Your task to perform on an android device: change the upload size in google photos Image 0: 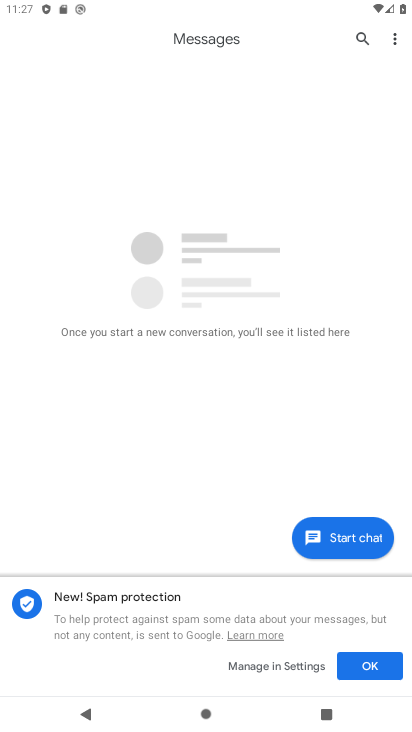
Step 0: press home button
Your task to perform on an android device: change the upload size in google photos Image 1: 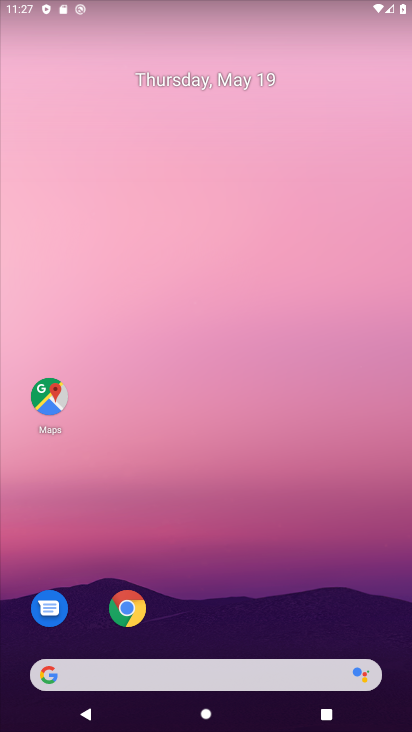
Step 1: drag from (395, 625) to (391, 224)
Your task to perform on an android device: change the upload size in google photos Image 2: 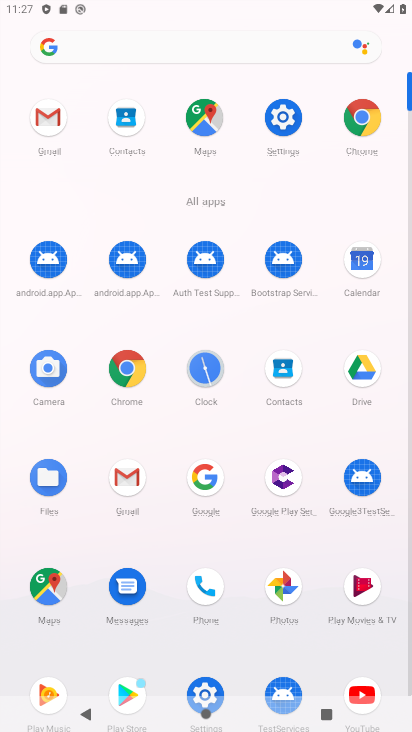
Step 2: click (275, 603)
Your task to perform on an android device: change the upload size in google photos Image 3: 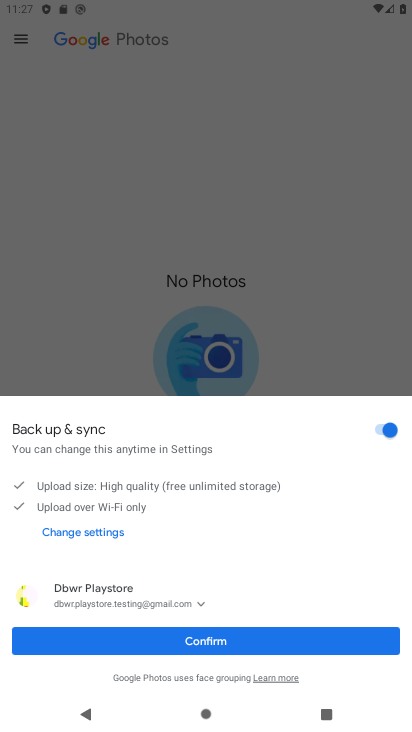
Step 3: click (343, 639)
Your task to perform on an android device: change the upload size in google photos Image 4: 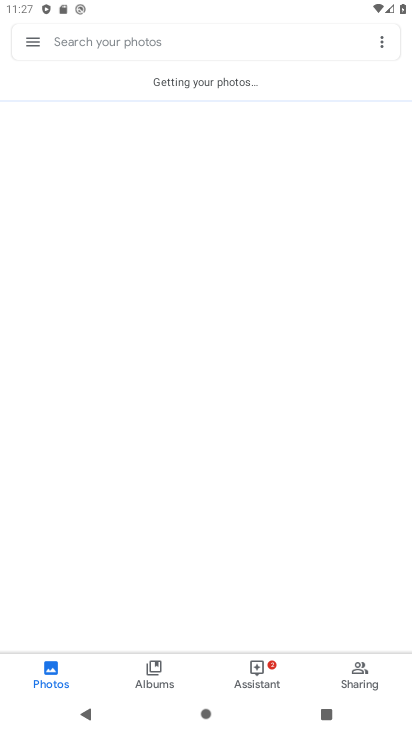
Step 4: click (22, 43)
Your task to perform on an android device: change the upload size in google photos Image 5: 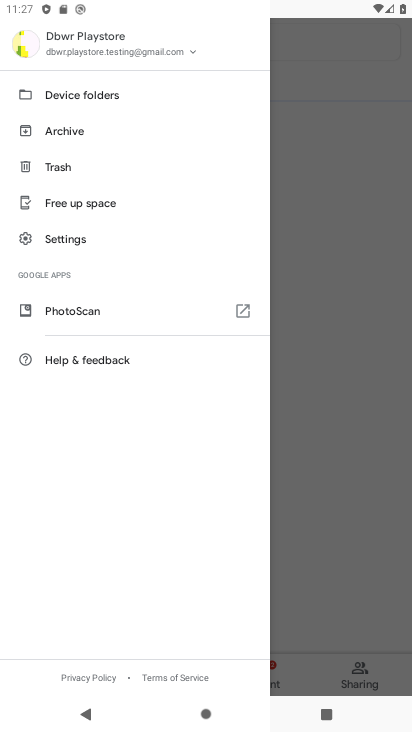
Step 5: drag from (180, 199) to (182, 358)
Your task to perform on an android device: change the upload size in google photos Image 6: 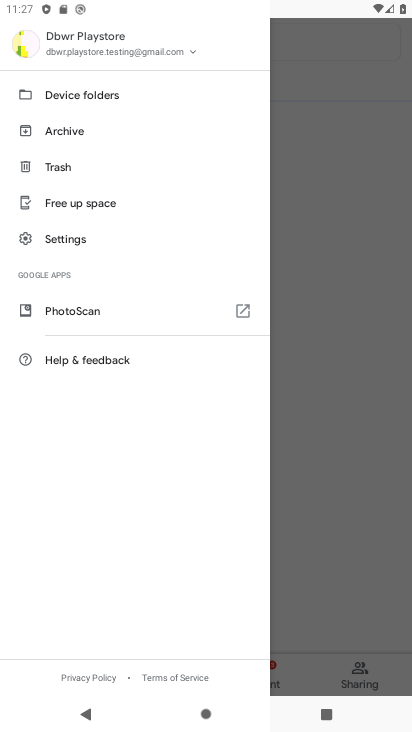
Step 6: click (95, 252)
Your task to perform on an android device: change the upload size in google photos Image 7: 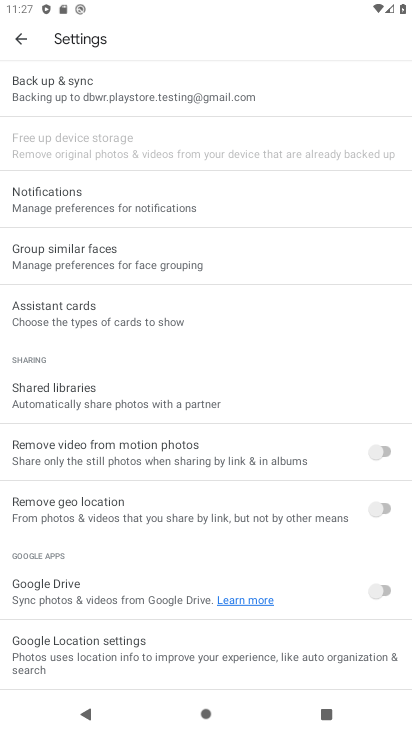
Step 7: click (137, 90)
Your task to perform on an android device: change the upload size in google photos Image 8: 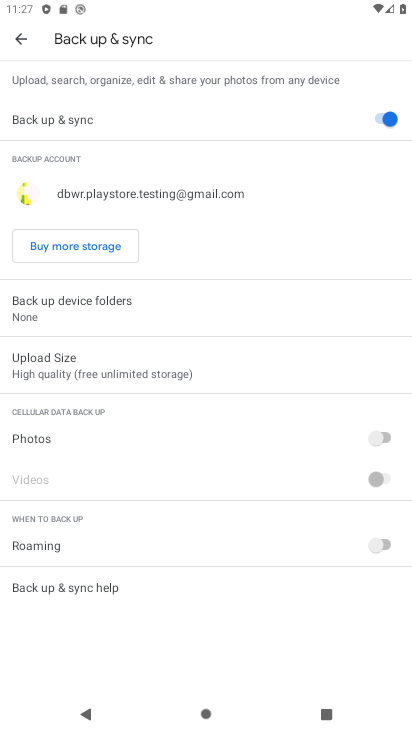
Step 8: click (189, 386)
Your task to perform on an android device: change the upload size in google photos Image 9: 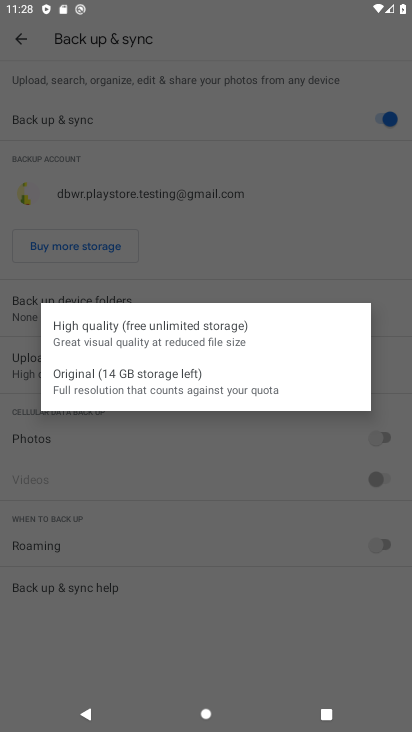
Step 9: click (170, 393)
Your task to perform on an android device: change the upload size in google photos Image 10: 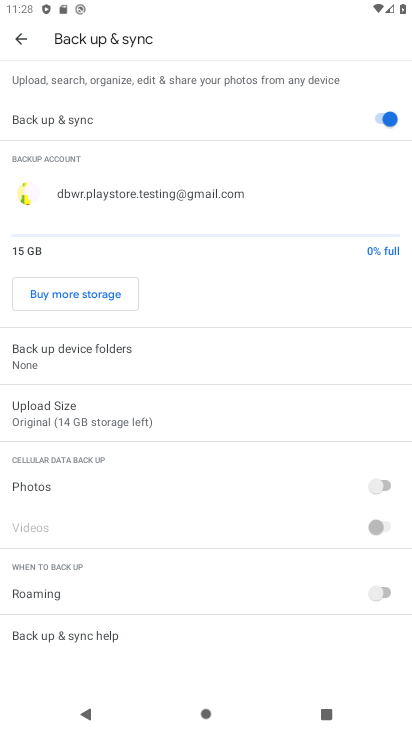
Step 10: task complete